Your task to perform on an android device: turn notification dots off Image 0: 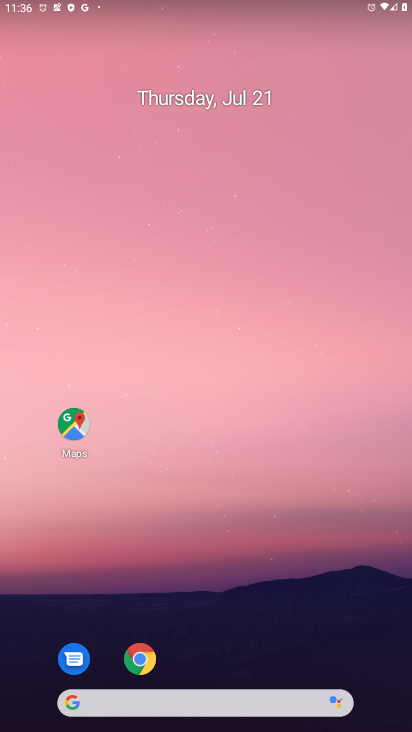
Step 0: press home button
Your task to perform on an android device: turn notification dots off Image 1: 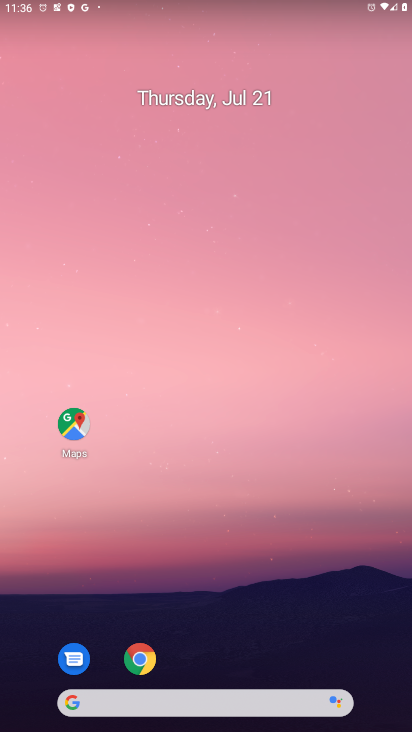
Step 1: drag from (196, 703) to (216, 104)
Your task to perform on an android device: turn notification dots off Image 2: 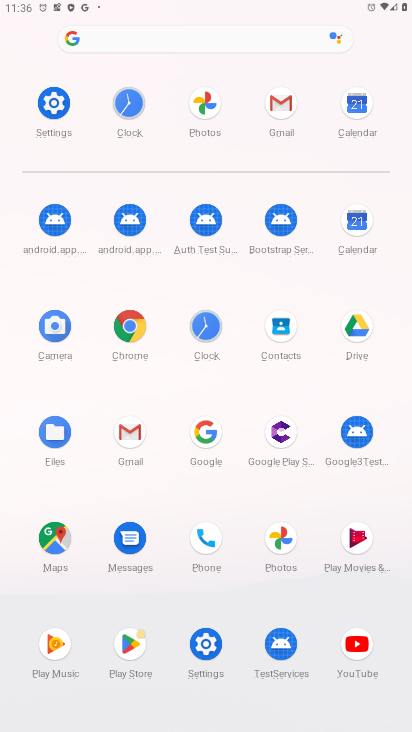
Step 2: click (54, 102)
Your task to perform on an android device: turn notification dots off Image 3: 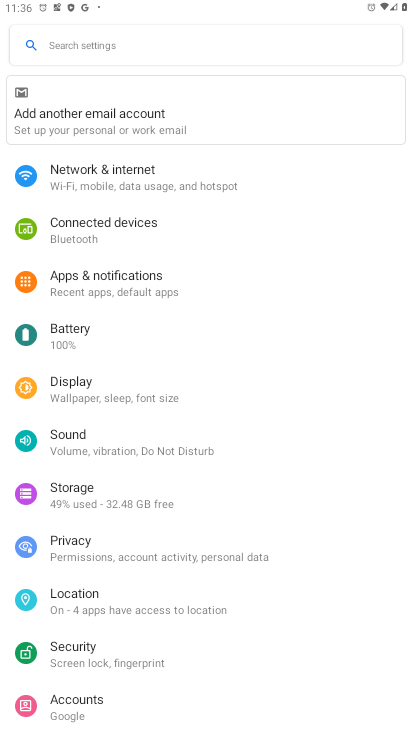
Step 3: click (147, 290)
Your task to perform on an android device: turn notification dots off Image 4: 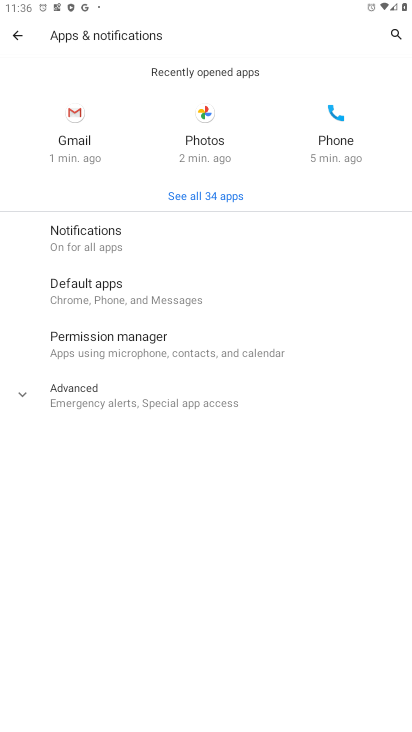
Step 4: click (89, 238)
Your task to perform on an android device: turn notification dots off Image 5: 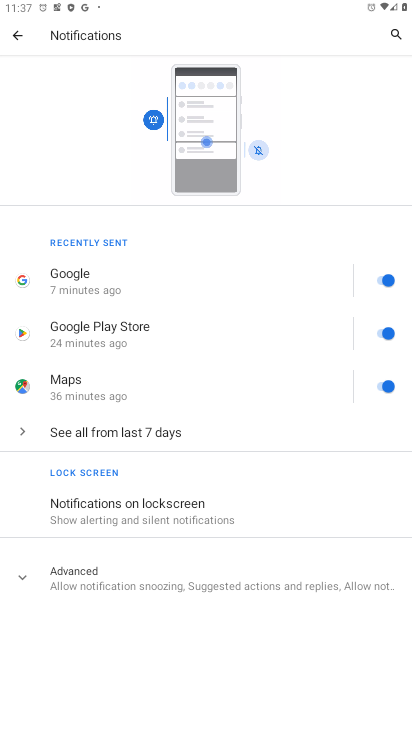
Step 5: click (171, 586)
Your task to perform on an android device: turn notification dots off Image 6: 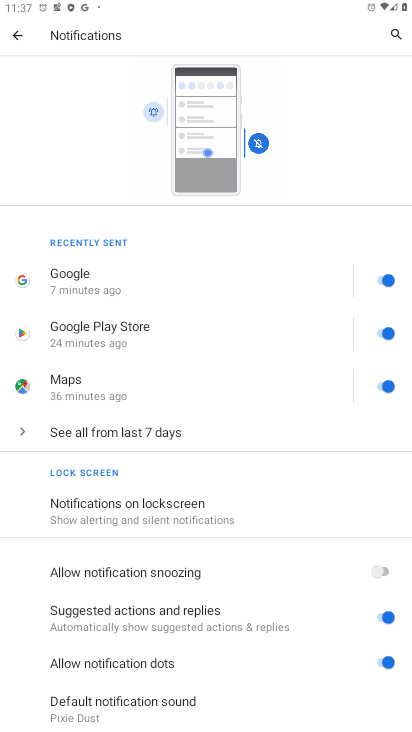
Step 6: click (385, 662)
Your task to perform on an android device: turn notification dots off Image 7: 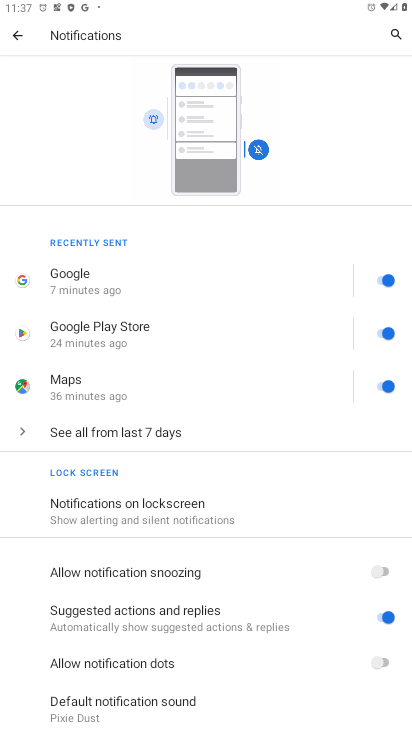
Step 7: task complete